Your task to perform on an android device: uninstall "Roku - Official Remote Control" Image 0: 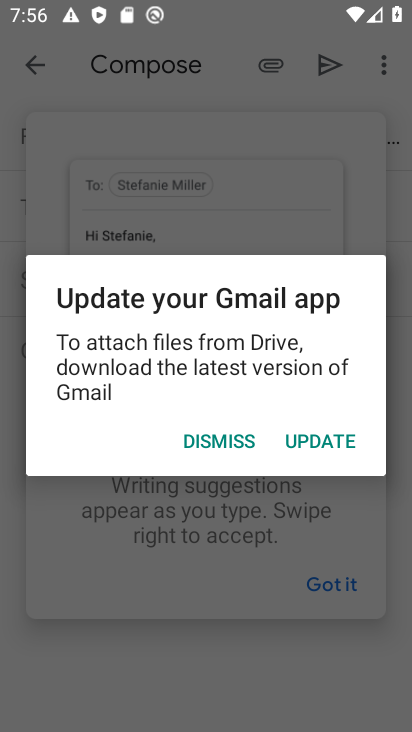
Step 0: press home button
Your task to perform on an android device: uninstall "Roku - Official Remote Control" Image 1: 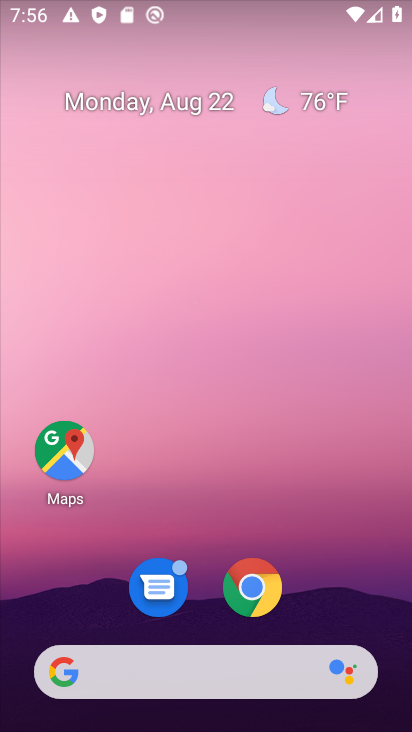
Step 1: drag from (382, 611) to (350, 88)
Your task to perform on an android device: uninstall "Roku - Official Remote Control" Image 2: 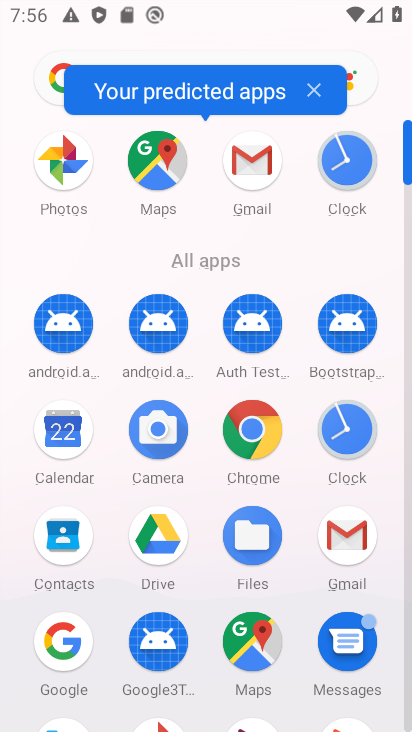
Step 2: click (405, 644)
Your task to perform on an android device: uninstall "Roku - Official Remote Control" Image 3: 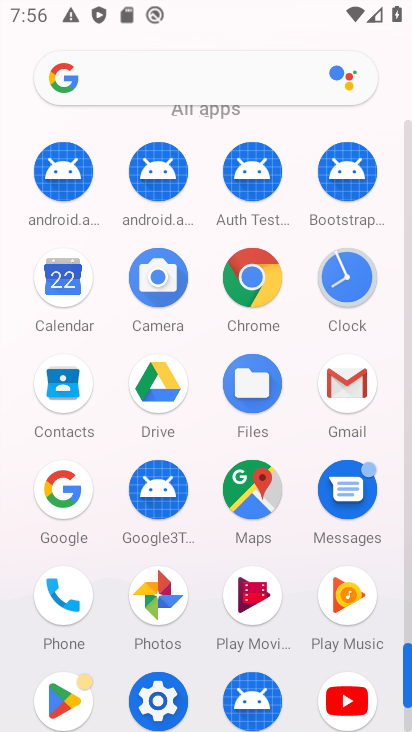
Step 3: drag from (201, 672) to (200, 371)
Your task to perform on an android device: uninstall "Roku - Official Remote Control" Image 4: 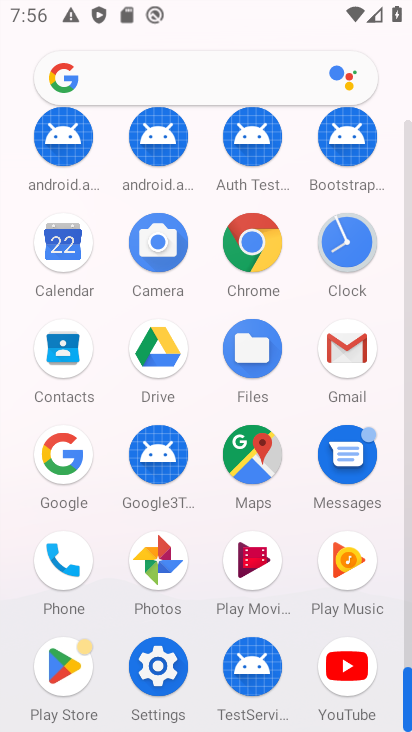
Step 4: click (67, 664)
Your task to perform on an android device: uninstall "Roku - Official Remote Control" Image 5: 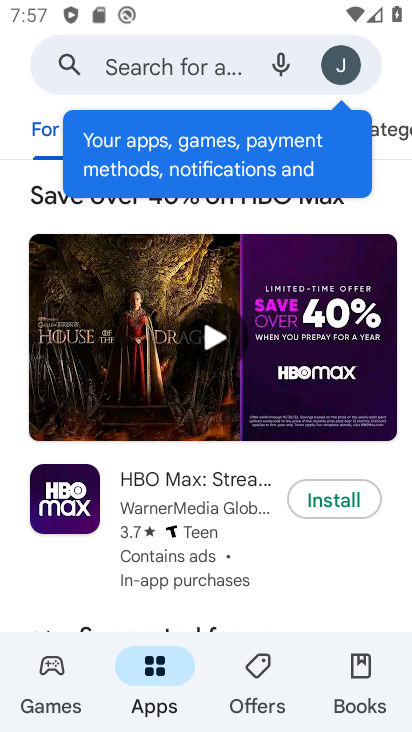
Step 5: click (69, 57)
Your task to perform on an android device: uninstall "Roku - Official Remote Control" Image 6: 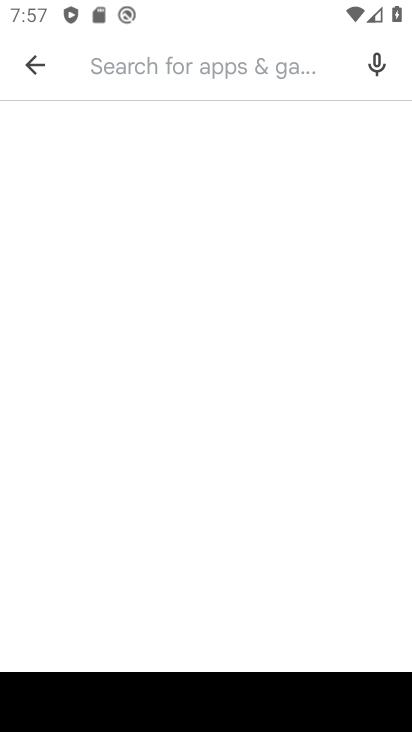
Step 6: type "roku"
Your task to perform on an android device: uninstall "Roku - Official Remote Control" Image 7: 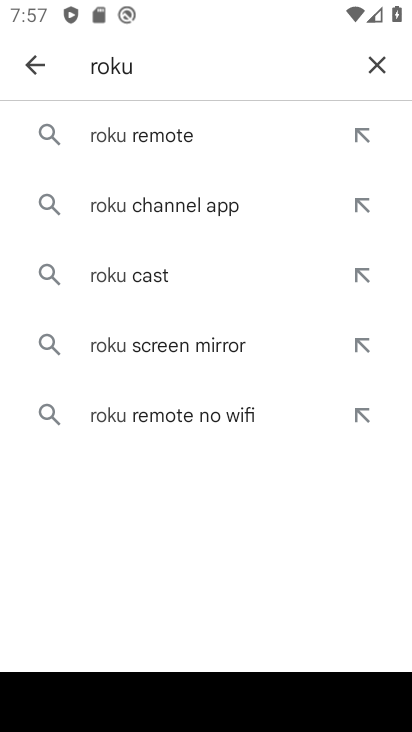
Step 7: type "- official remote"
Your task to perform on an android device: uninstall "Roku - Official Remote Control" Image 8: 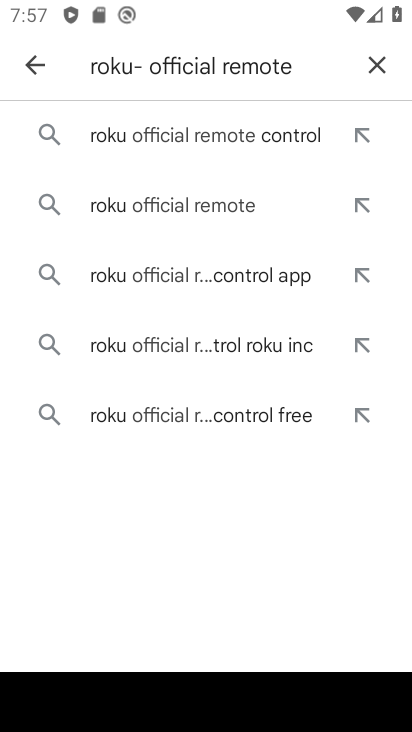
Step 8: click (178, 127)
Your task to perform on an android device: uninstall "Roku - Official Remote Control" Image 9: 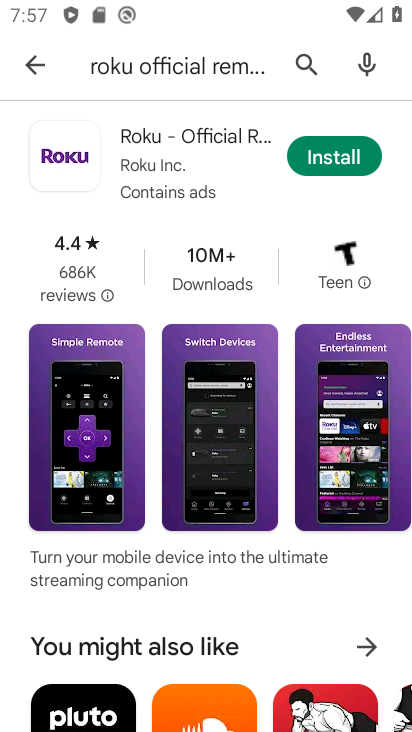
Step 9: click (161, 134)
Your task to perform on an android device: uninstall "Roku - Official Remote Control" Image 10: 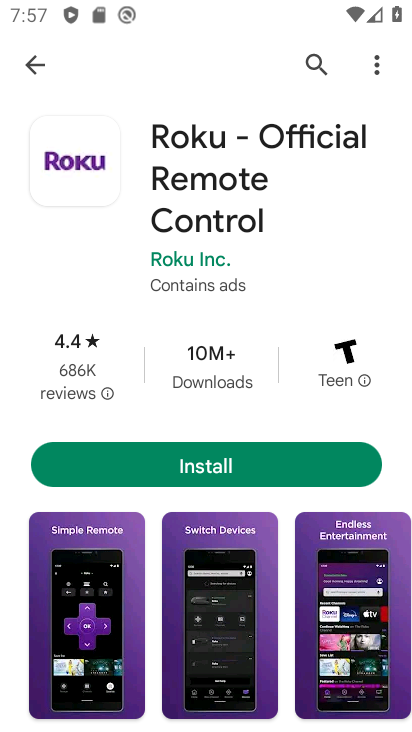
Step 10: task complete